Your task to perform on an android device: turn on translation in the chrome app Image 0: 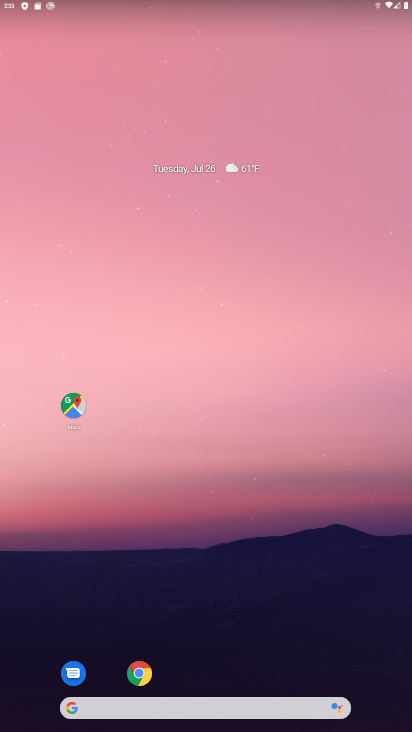
Step 0: click (137, 670)
Your task to perform on an android device: turn on translation in the chrome app Image 1: 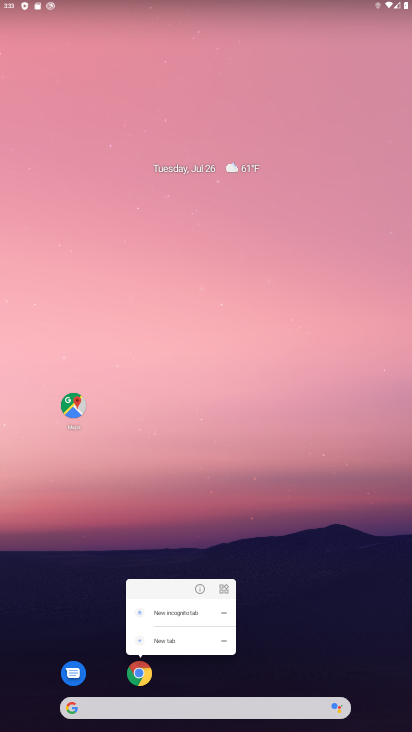
Step 1: click (137, 670)
Your task to perform on an android device: turn on translation in the chrome app Image 2: 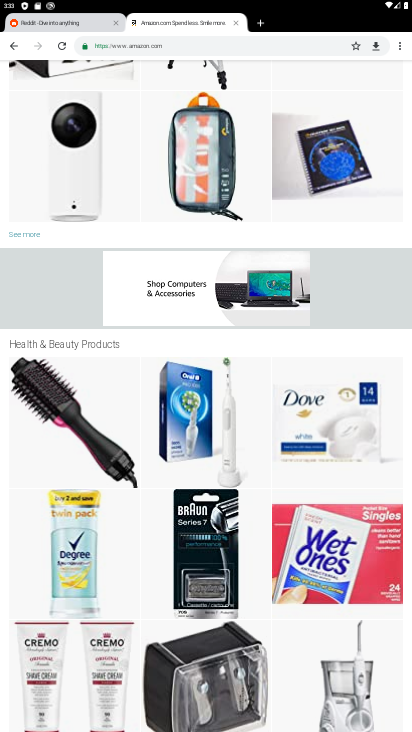
Step 2: click (398, 45)
Your task to perform on an android device: turn on translation in the chrome app Image 3: 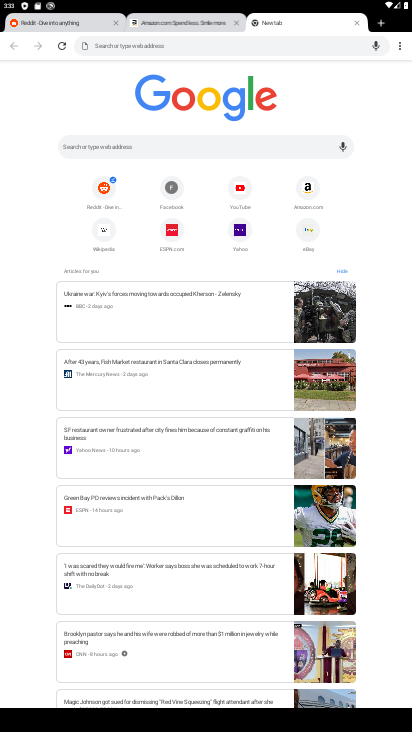
Step 3: click (398, 45)
Your task to perform on an android device: turn on translation in the chrome app Image 4: 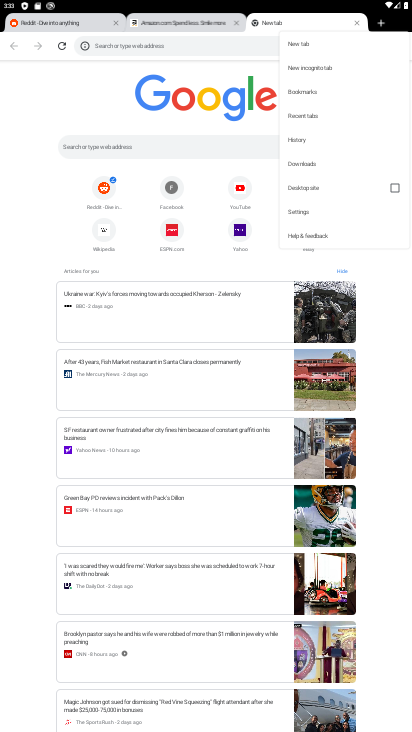
Step 4: click (313, 213)
Your task to perform on an android device: turn on translation in the chrome app Image 5: 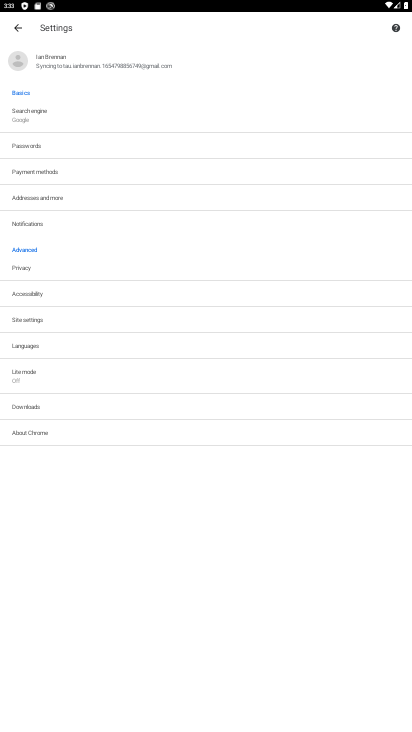
Step 5: click (44, 349)
Your task to perform on an android device: turn on translation in the chrome app Image 6: 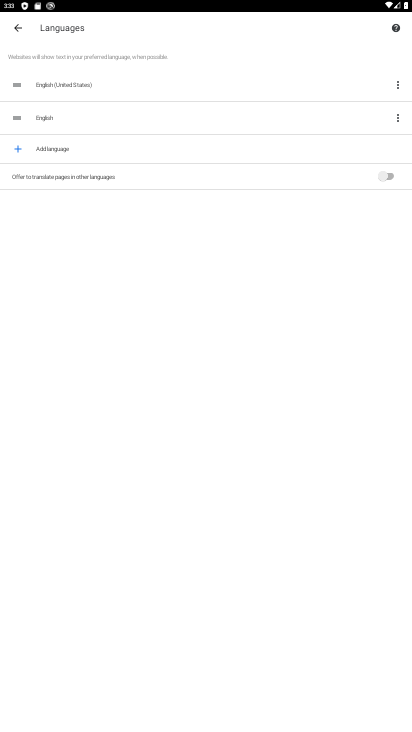
Step 6: click (383, 173)
Your task to perform on an android device: turn on translation in the chrome app Image 7: 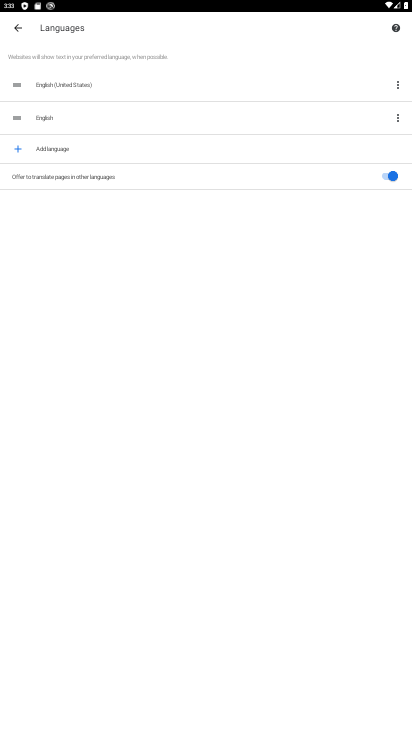
Step 7: task complete